Your task to perform on an android device: turn on data saver in the chrome app Image 0: 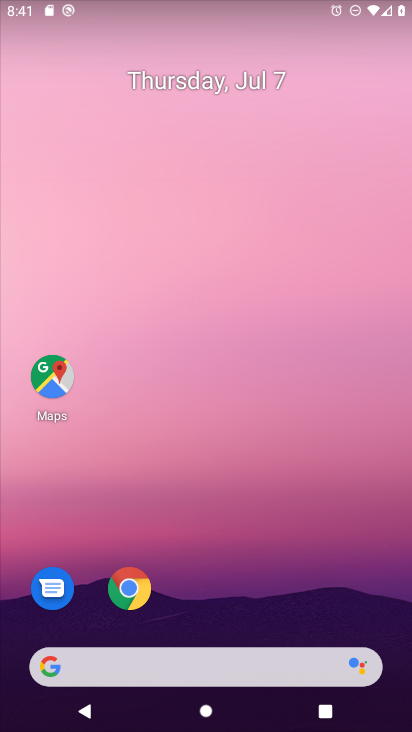
Step 0: drag from (257, 599) to (375, 46)
Your task to perform on an android device: turn on data saver in the chrome app Image 1: 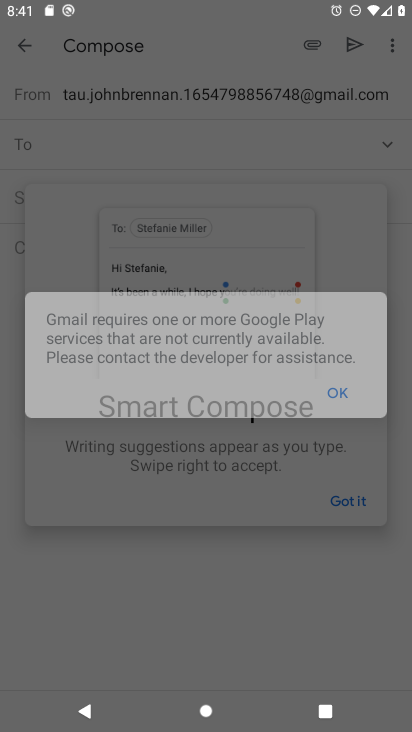
Step 1: click (284, 119)
Your task to perform on an android device: turn on data saver in the chrome app Image 2: 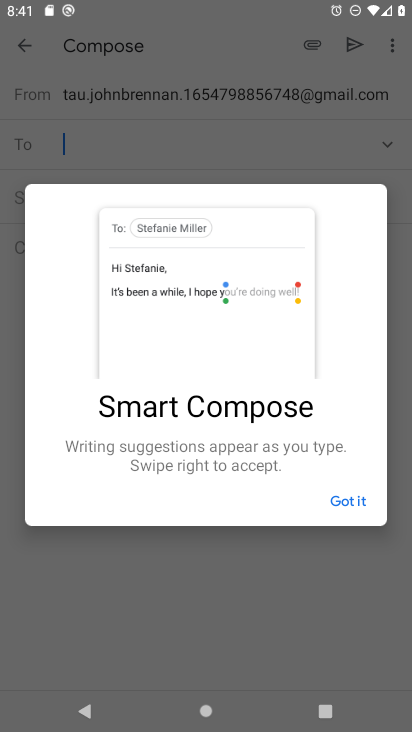
Step 2: click (344, 502)
Your task to perform on an android device: turn on data saver in the chrome app Image 3: 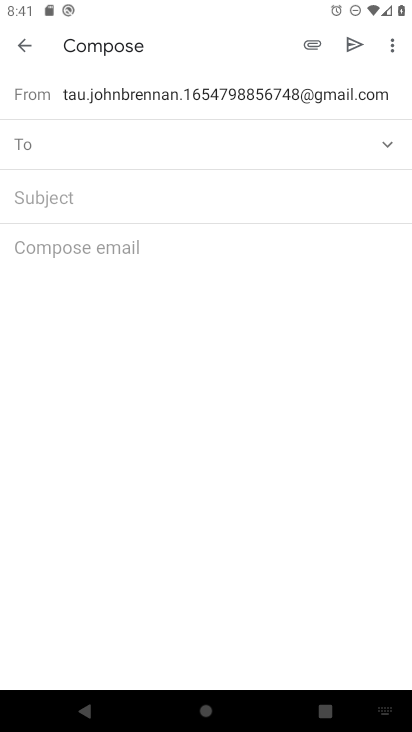
Step 3: click (38, 36)
Your task to perform on an android device: turn on data saver in the chrome app Image 4: 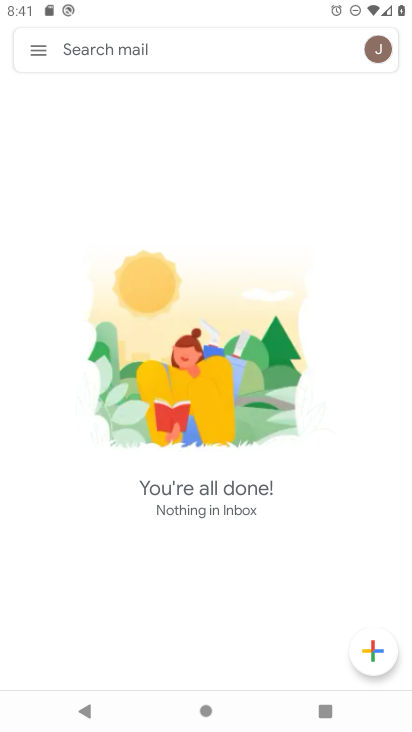
Step 4: press home button
Your task to perform on an android device: turn on data saver in the chrome app Image 5: 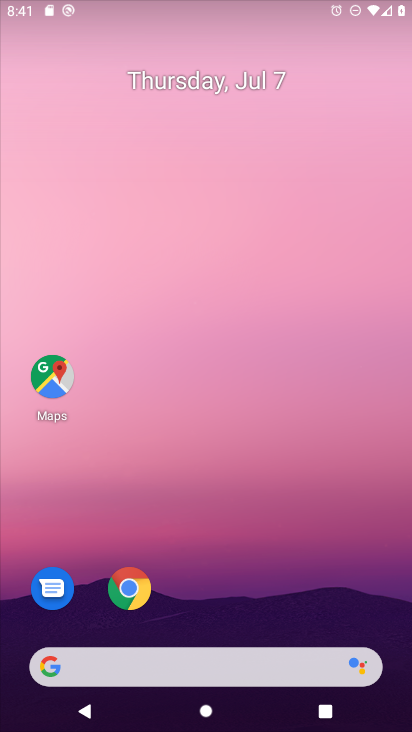
Step 5: drag from (259, 593) to (228, 227)
Your task to perform on an android device: turn on data saver in the chrome app Image 6: 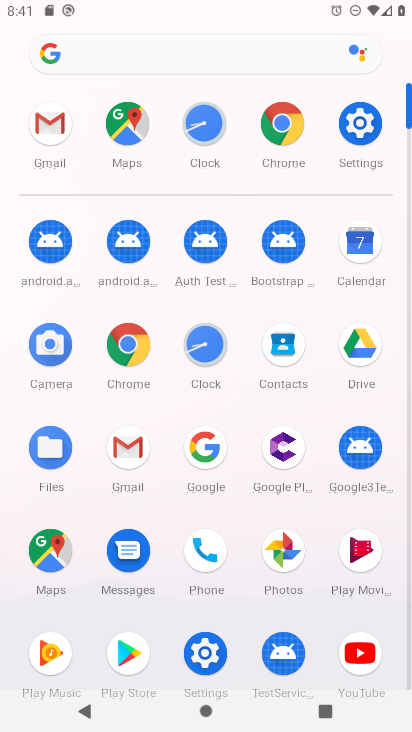
Step 6: click (293, 106)
Your task to perform on an android device: turn on data saver in the chrome app Image 7: 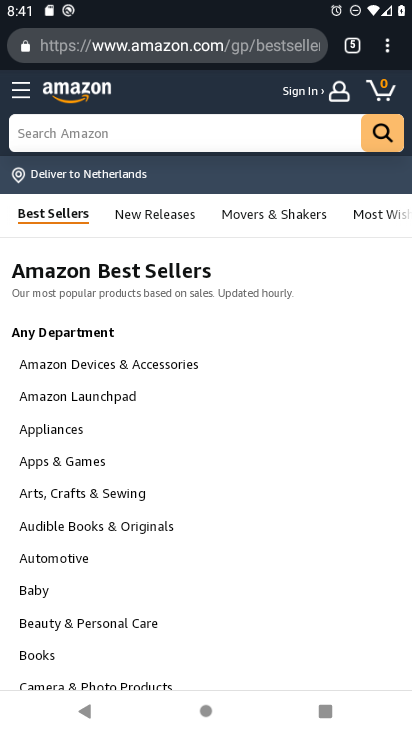
Step 7: click (385, 42)
Your task to perform on an android device: turn on data saver in the chrome app Image 8: 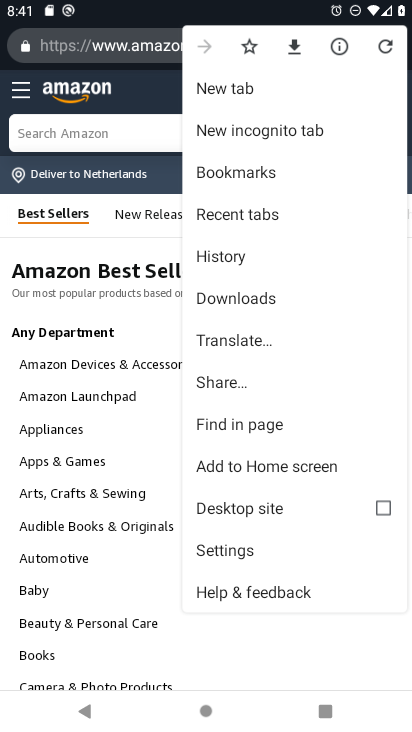
Step 8: click (253, 542)
Your task to perform on an android device: turn on data saver in the chrome app Image 9: 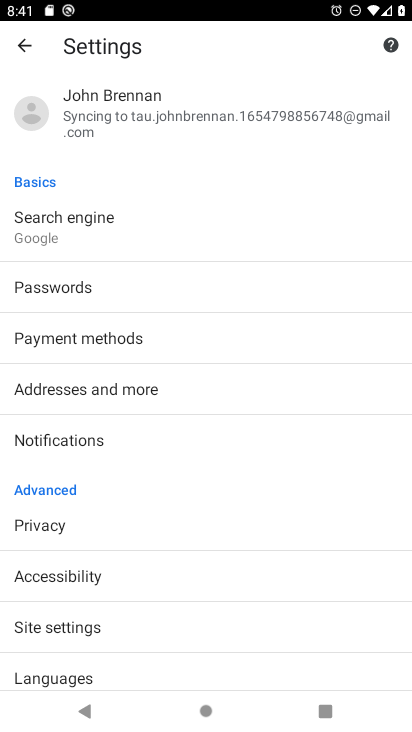
Step 9: drag from (151, 545) to (225, 186)
Your task to perform on an android device: turn on data saver in the chrome app Image 10: 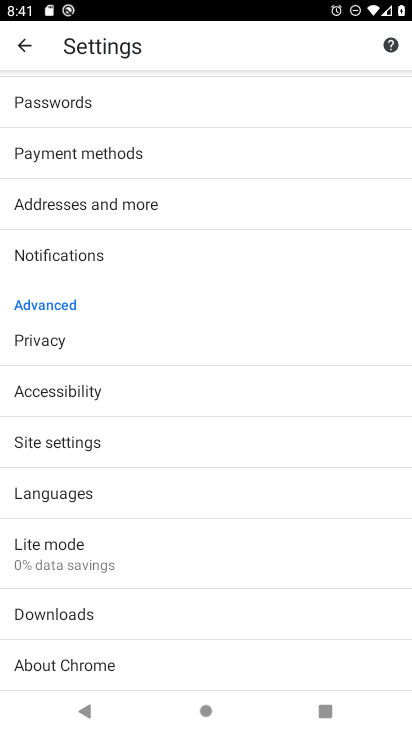
Step 10: click (112, 554)
Your task to perform on an android device: turn on data saver in the chrome app Image 11: 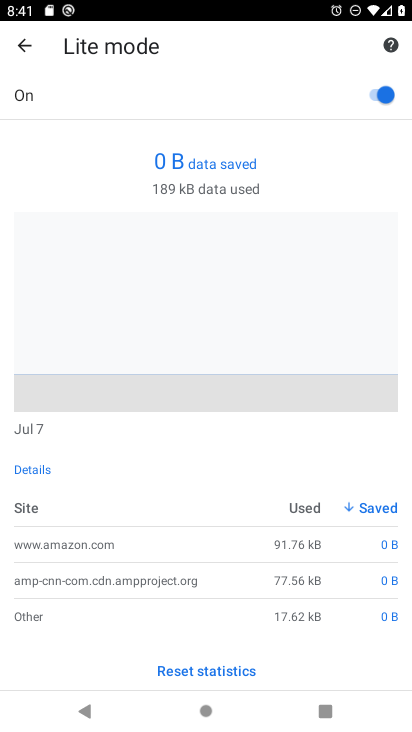
Step 11: task complete